Your task to perform on an android device: turn off javascript in the chrome app Image 0: 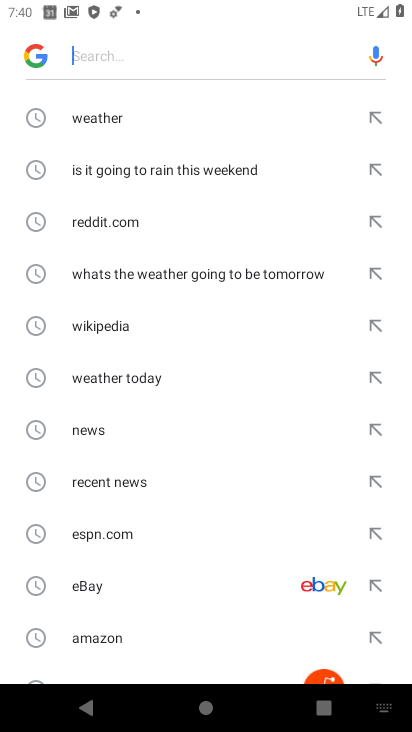
Step 0: press home button
Your task to perform on an android device: turn off javascript in the chrome app Image 1: 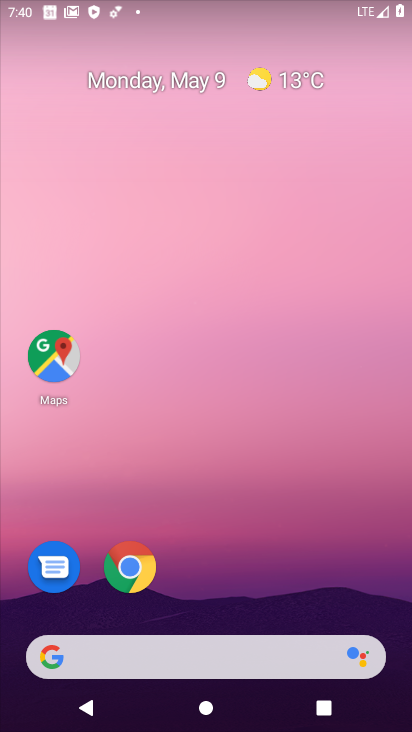
Step 1: drag from (198, 553) to (238, 32)
Your task to perform on an android device: turn off javascript in the chrome app Image 2: 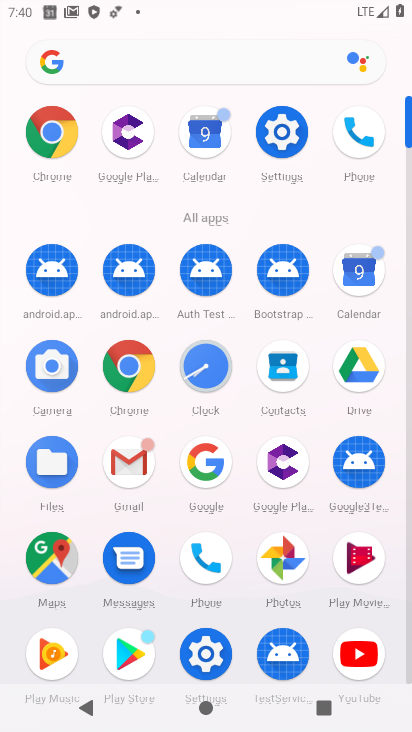
Step 2: click (53, 130)
Your task to perform on an android device: turn off javascript in the chrome app Image 3: 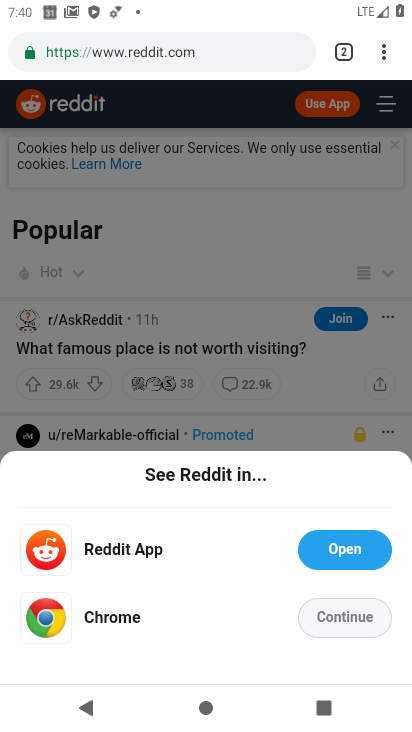
Step 3: drag from (384, 45) to (246, 613)
Your task to perform on an android device: turn off javascript in the chrome app Image 4: 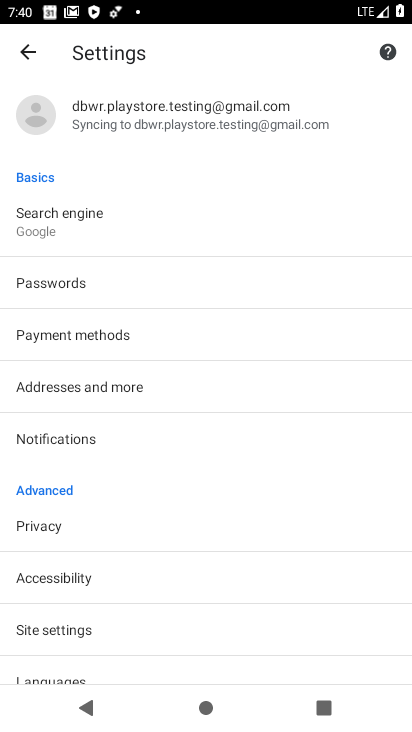
Step 4: click (93, 629)
Your task to perform on an android device: turn off javascript in the chrome app Image 5: 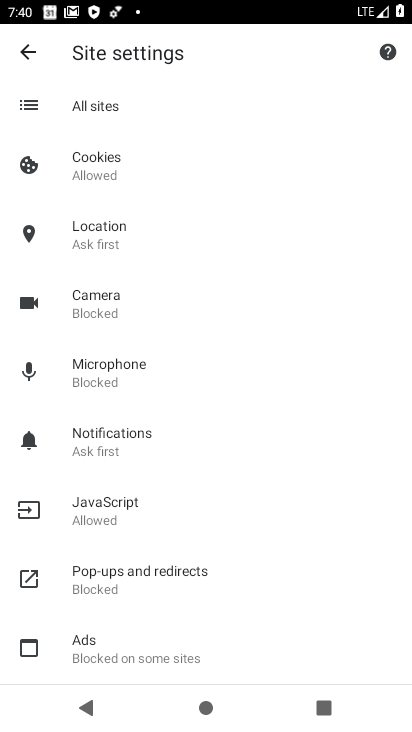
Step 5: click (212, 510)
Your task to perform on an android device: turn off javascript in the chrome app Image 6: 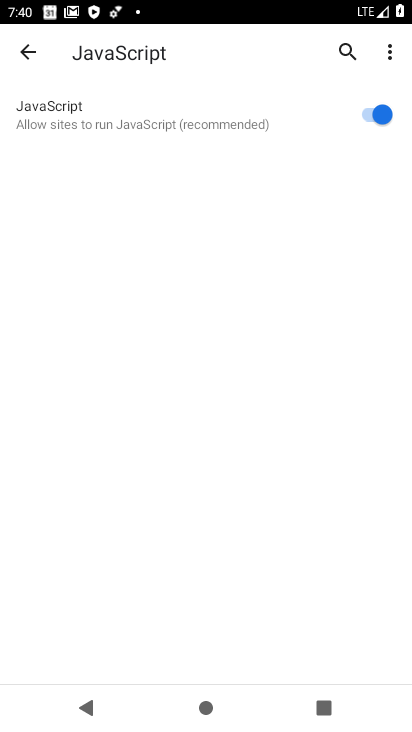
Step 6: click (363, 105)
Your task to perform on an android device: turn off javascript in the chrome app Image 7: 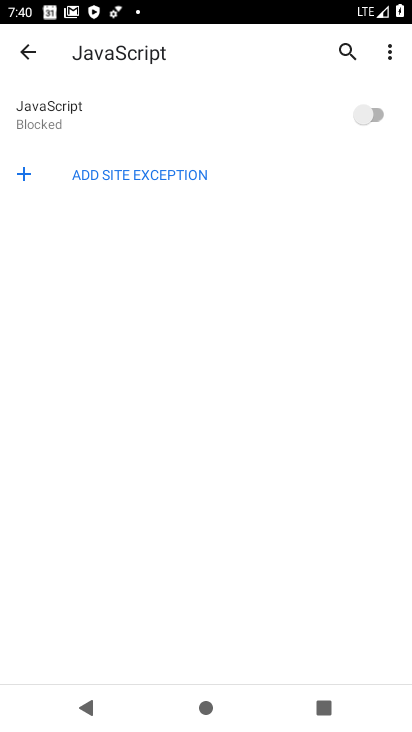
Step 7: task complete